Your task to perform on an android device: change the upload size in google photos Image 0: 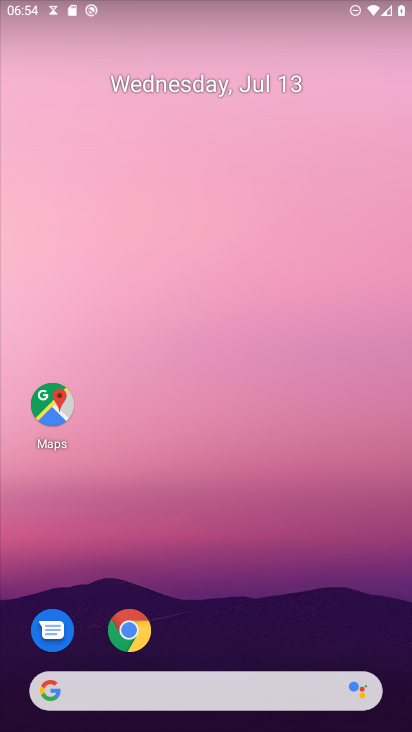
Step 0: drag from (313, 693) to (315, 110)
Your task to perform on an android device: change the upload size in google photos Image 1: 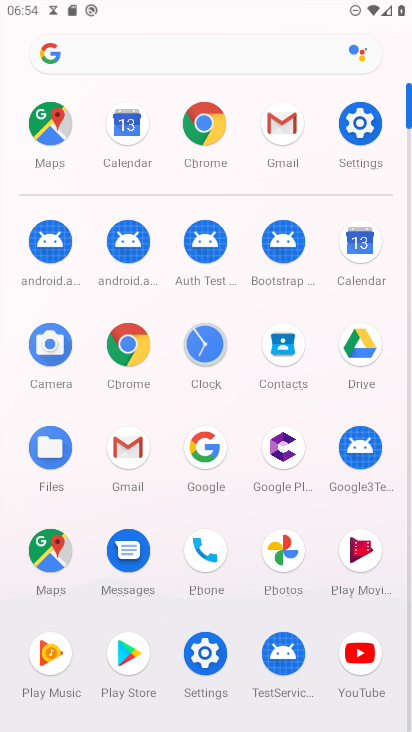
Step 1: click (301, 551)
Your task to perform on an android device: change the upload size in google photos Image 2: 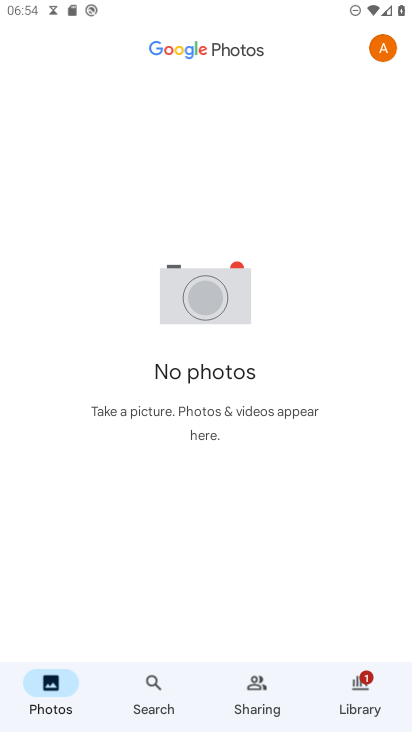
Step 2: click (382, 41)
Your task to perform on an android device: change the upload size in google photos Image 3: 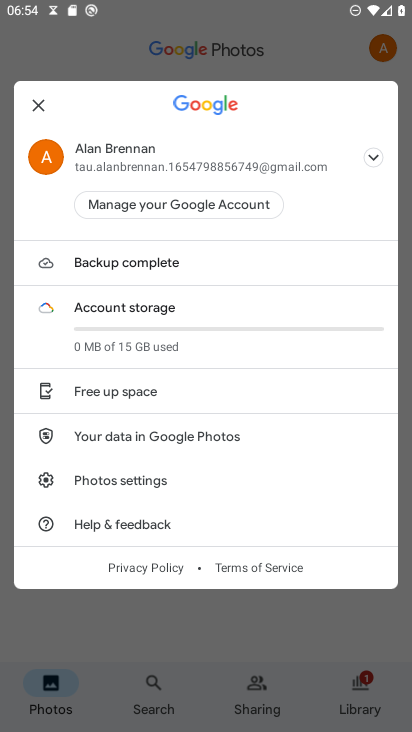
Step 3: click (117, 473)
Your task to perform on an android device: change the upload size in google photos Image 4: 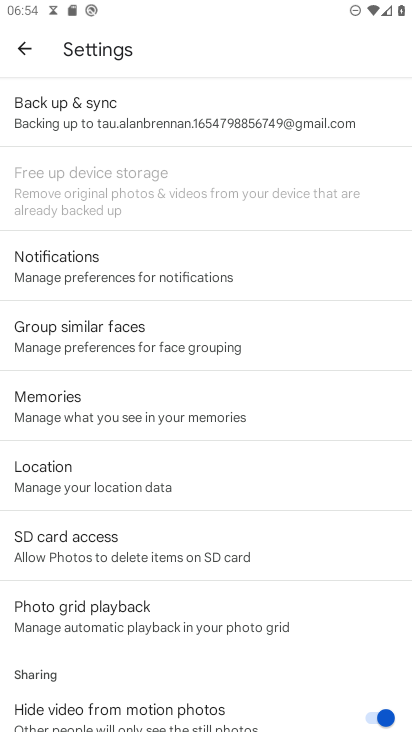
Step 4: click (157, 127)
Your task to perform on an android device: change the upload size in google photos Image 5: 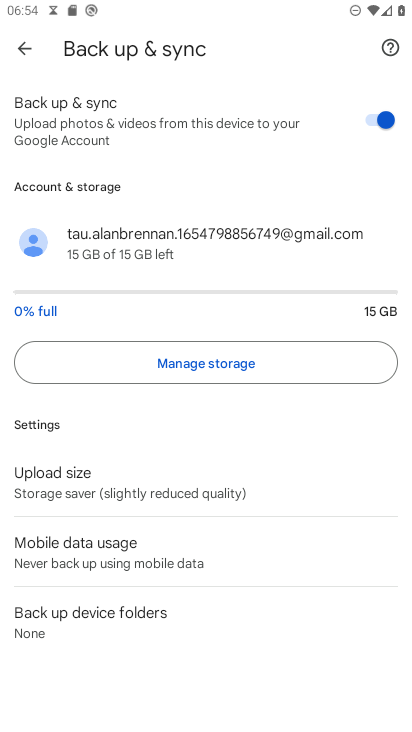
Step 5: click (77, 490)
Your task to perform on an android device: change the upload size in google photos Image 6: 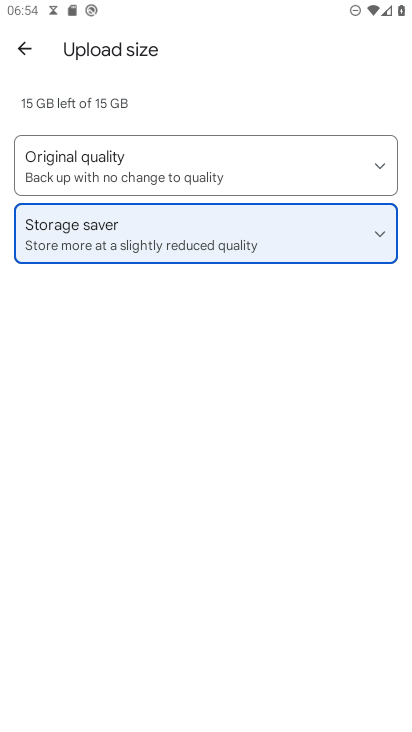
Step 6: click (122, 156)
Your task to perform on an android device: change the upload size in google photos Image 7: 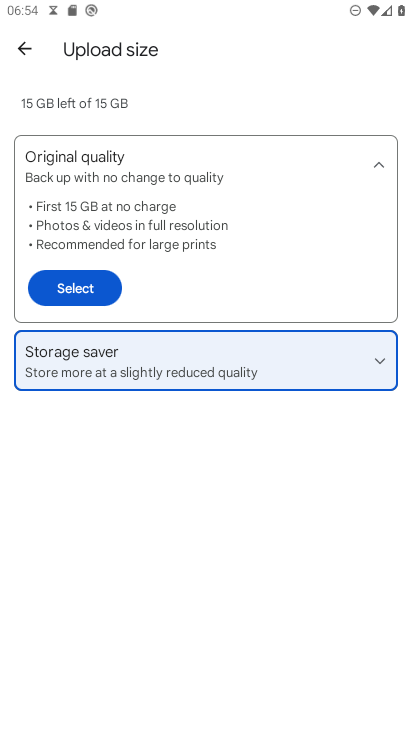
Step 7: click (90, 281)
Your task to perform on an android device: change the upload size in google photos Image 8: 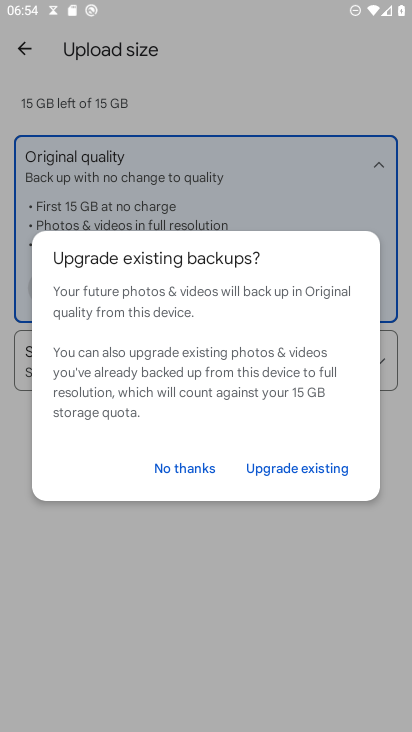
Step 8: click (258, 468)
Your task to perform on an android device: change the upload size in google photos Image 9: 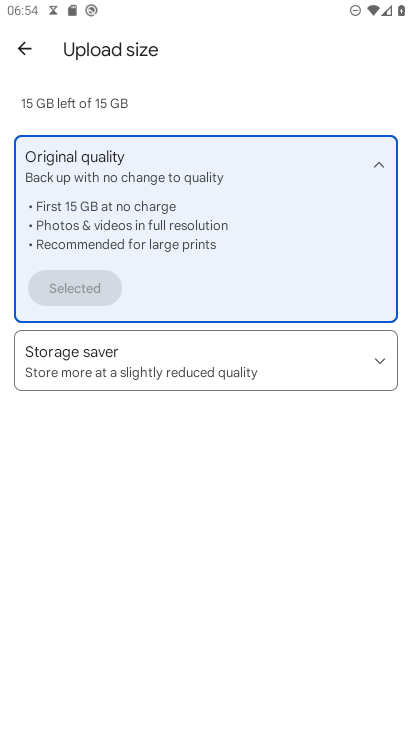
Step 9: task complete